Your task to perform on an android device: Open the Play Movies app and select the watchlist tab. Image 0: 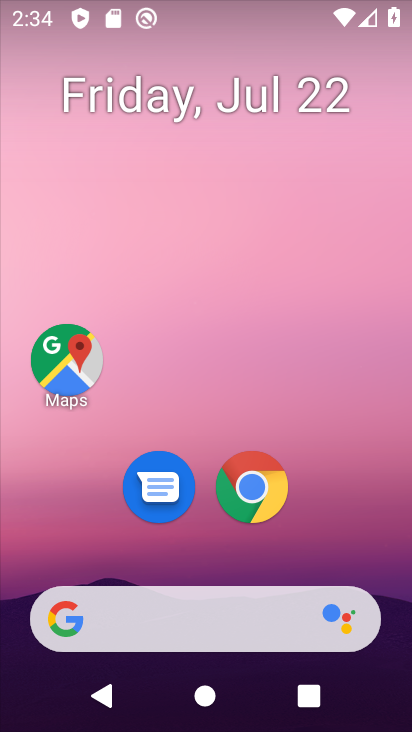
Step 0: drag from (209, 570) to (279, 35)
Your task to perform on an android device: Open the Play Movies app and select the watchlist tab. Image 1: 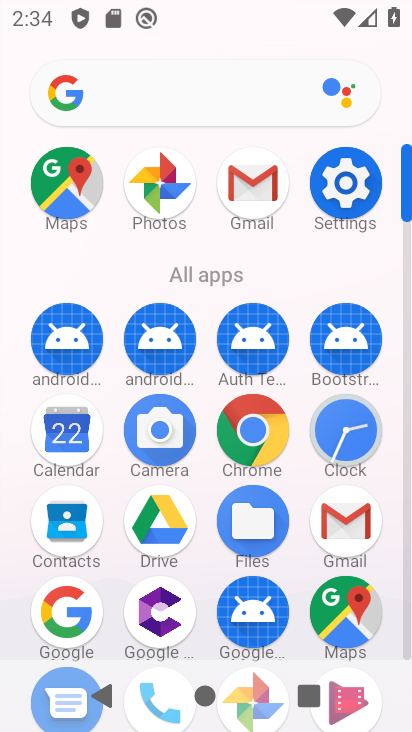
Step 1: drag from (182, 602) to (242, 166)
Your task to perform on an android device: Open the Play Movies app and select the watchlist tab. Image 2: 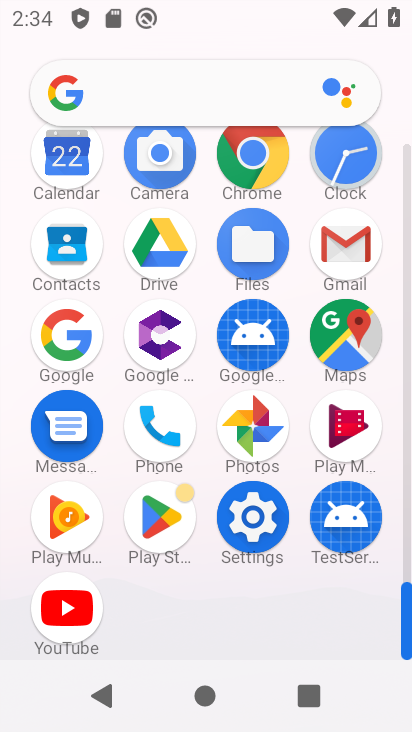
Step 2: click (342, 432)
Your task to perform on an android device: Open the Play Movies app and select the watchlist tab. Image 3: 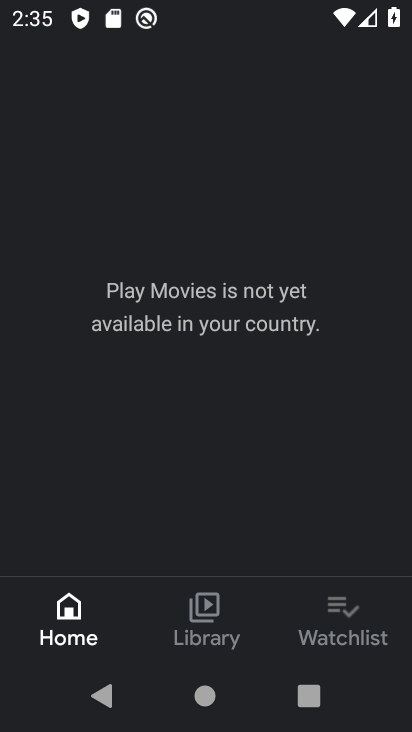
Step 3: click (348, 610)
Your task to perform on an android device: Open the Play Movies app and select the watchlist tab. Image 4: 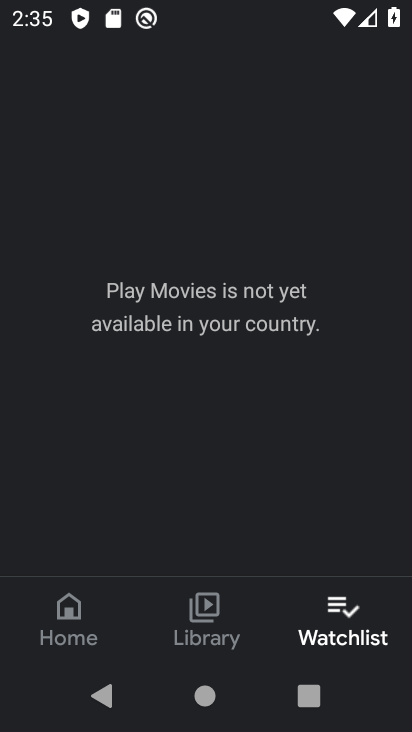
Step 4: task complete